Your task to perform on an android device: Do I have any events this weekend? Image 0: 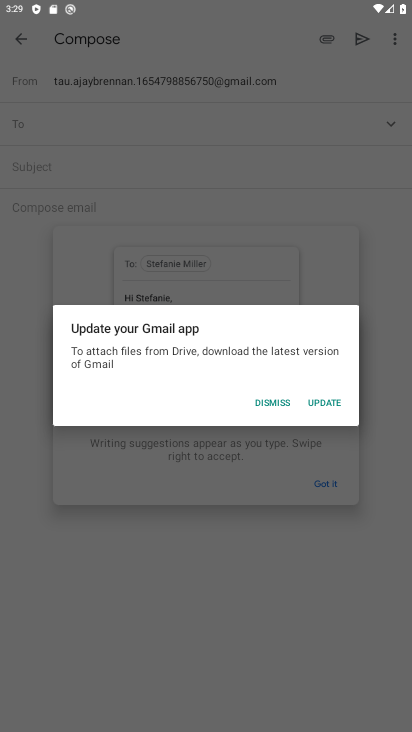
Step 0: press home button
Your task to perform on an android device: Do I have any events this weekend? Image 1: 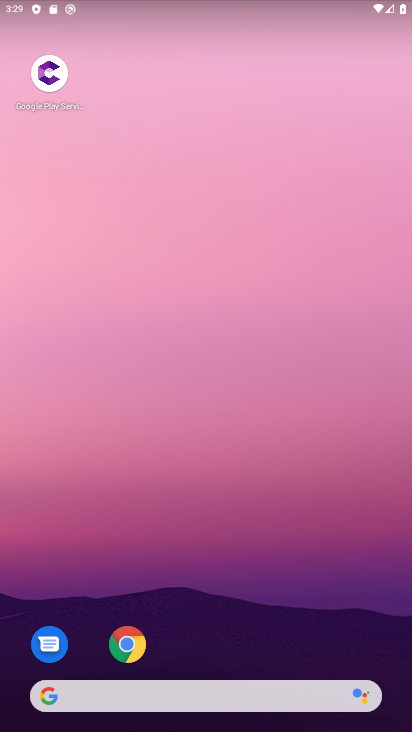
Step 1: drag from (195, 556) to (196, 9)
Your task to perform on an android device: Do I have any events this weekend? Image 2: 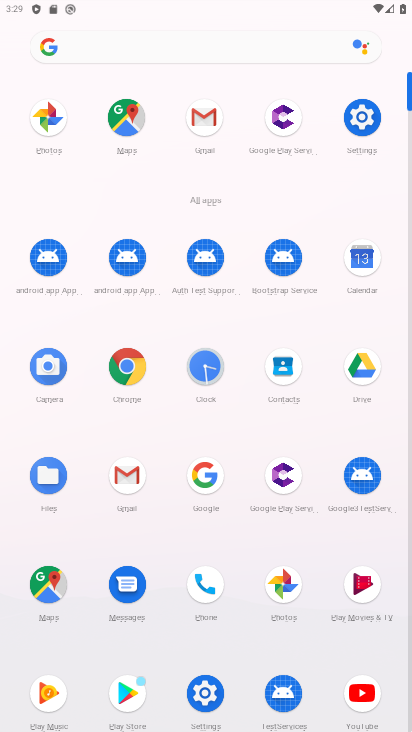
Step 2: click (376, 246)
Your task to perform on an android device: Do I have any events this weekend? Image 3: 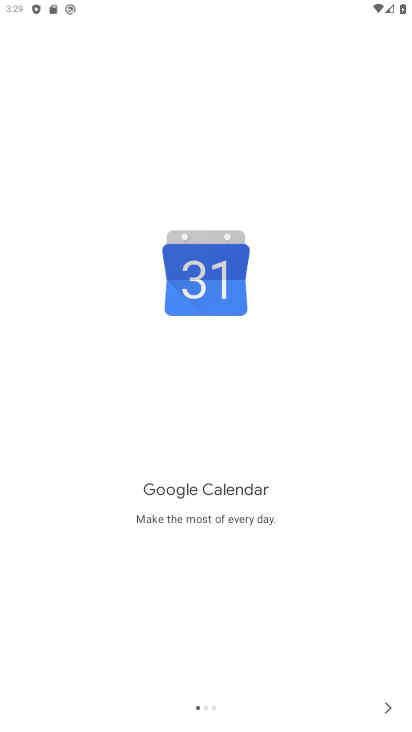
Step 3: click (388, 698)
Your task to perform on an android device: Do I have any events this weekend? Image 4: 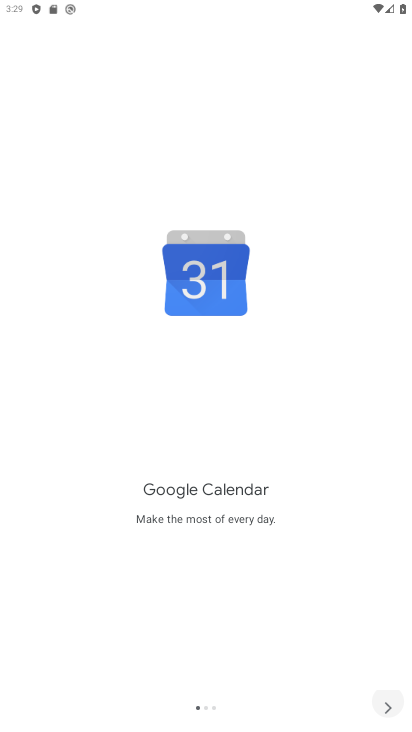
Step 4: click (388, 698)
Your task to perform on an android device: Do I have any events this weekend? Image 5: 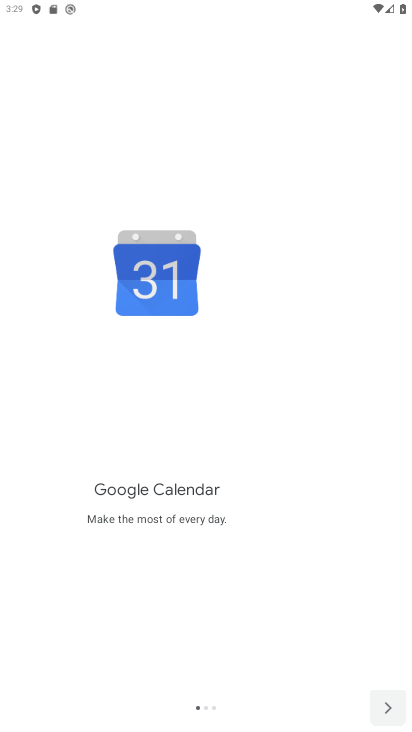
Step 5: click (388, 698)
Your task to perform on an android device: Do I have any events this weekend? Image 6: 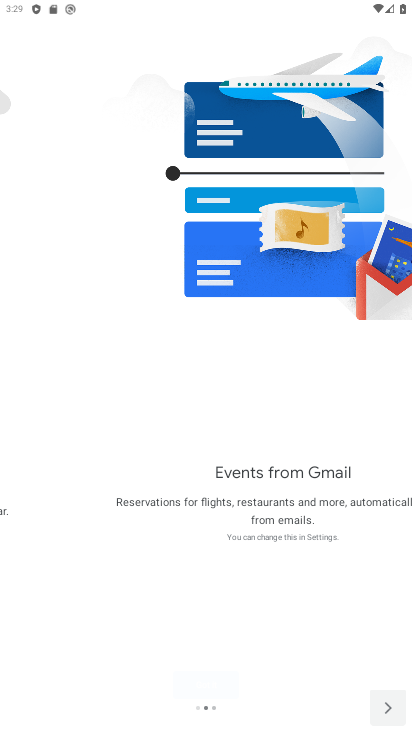
Step 6: click (388, 698)
Your task to perform on an android device: Do I have any events this weekend? Image 7: 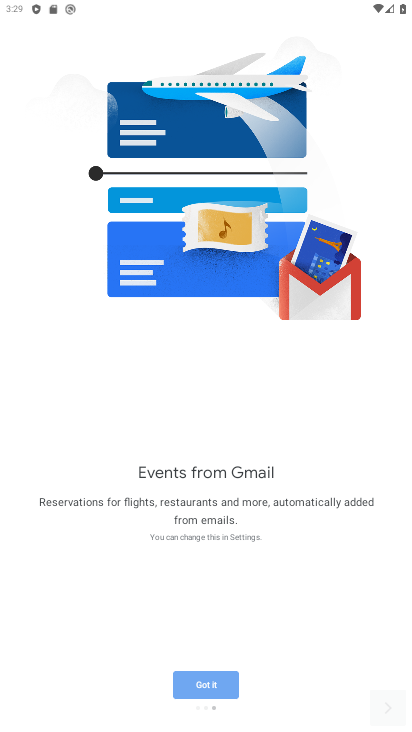
Step 7: click (388, 698)
Your task to perform on an android device: Do I have any events this weekend? Image 8: 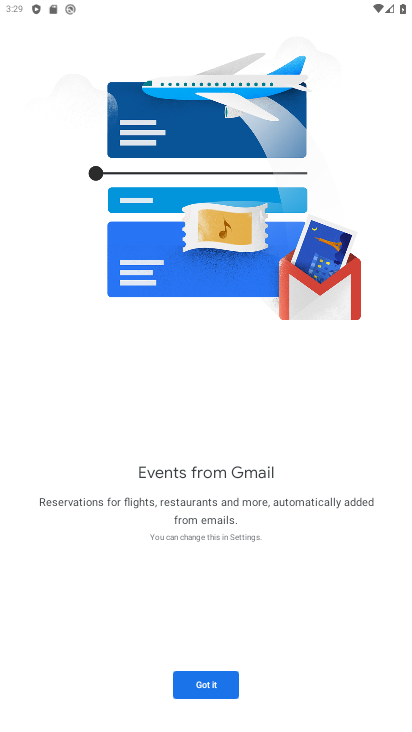
Step 8: click (206, 686)
Your task to perform on an android device: Do I have any events this weekend? Image 9: 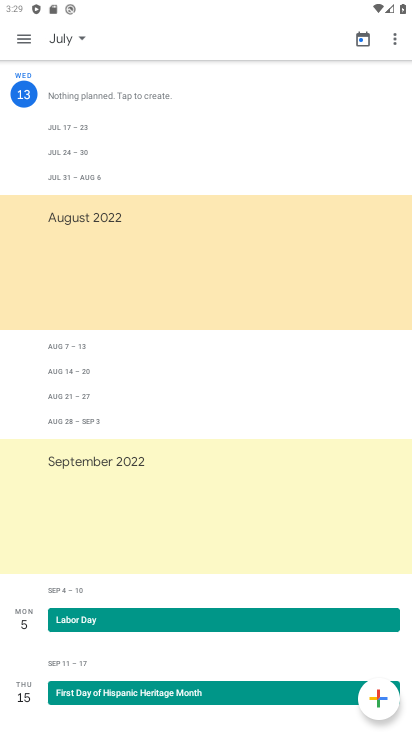
Step 9: task complete